Your task to perform on an android device: Open maps Image 0: 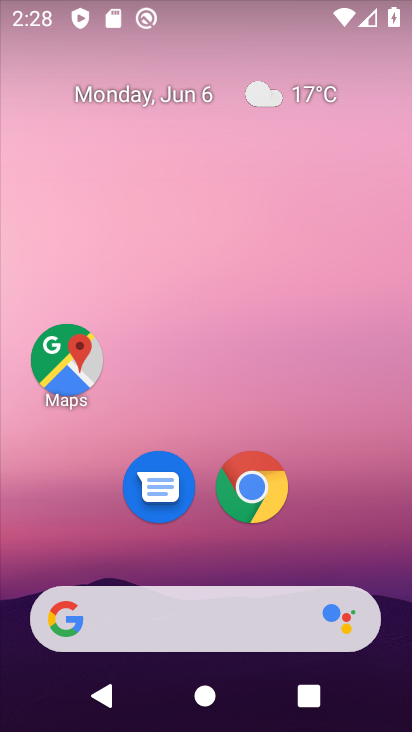
Step 0: click (82, 380)
Your task to perform on an android device: Open maps Image 1: 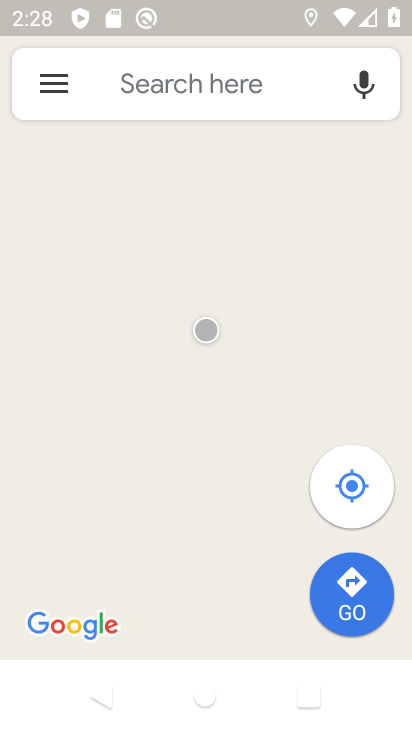
Step 1: task complete